Your task to perform on an android device: toggle wifi Image 0: 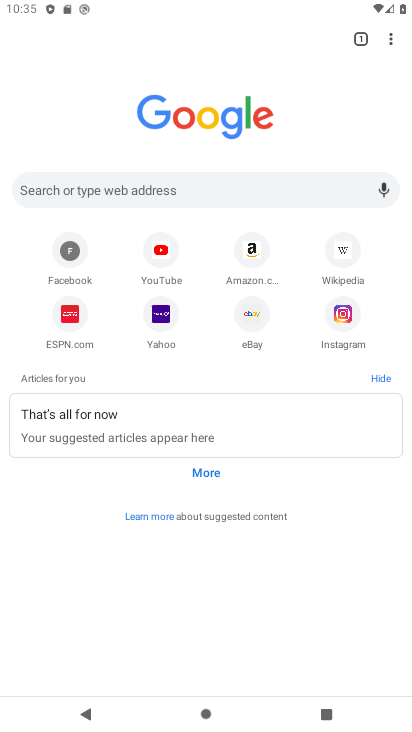
Step 0: click (154, 283)
Your task to perform on an android device: toggle wifi Image 1: 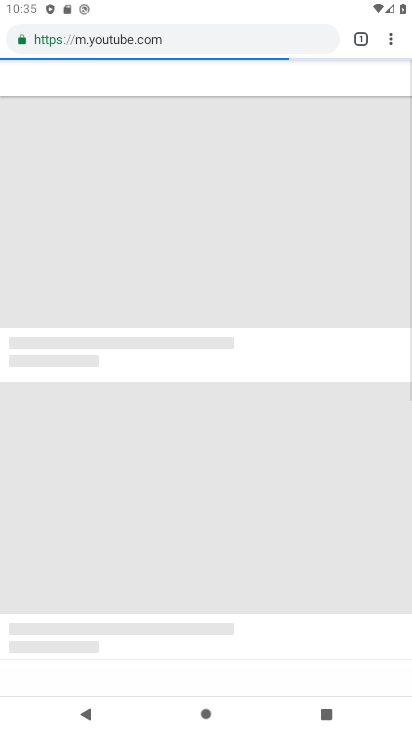
Step 1: press home button
Your task to perform on an android device: toggle wifi Image 2: 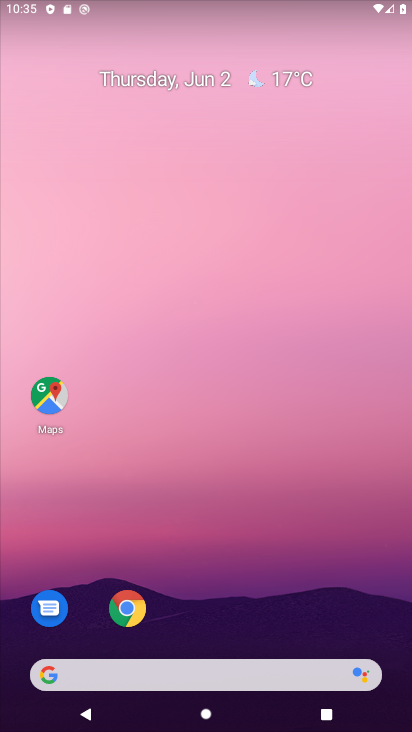
Step 2: drag from (285, 533) to (210, 0)
Your task to perform on an android device: toggle wifi Image 3: 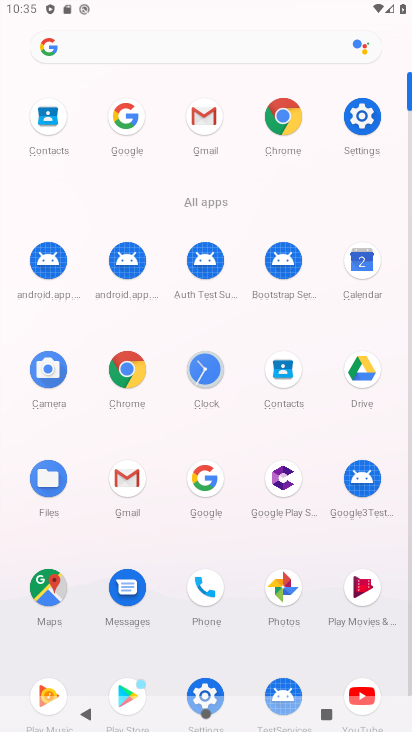
Step 3: click (358, 114)
Your task to perform on an android device: toggle wifi Image 4: 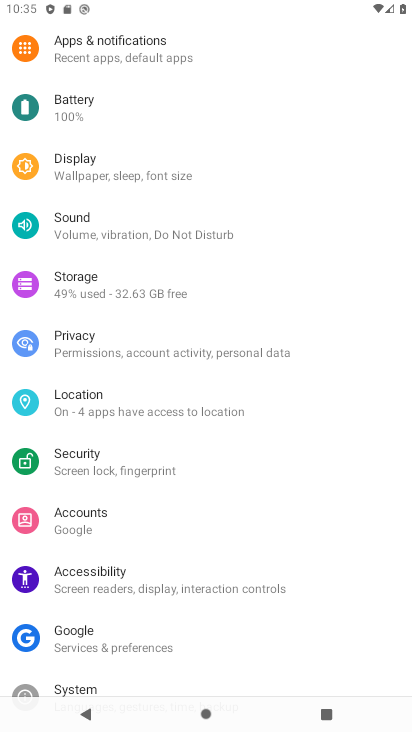
Step 4: drag from (210, 122) to (225, 562)
Your task to perform on an android device: toggle wifi Image 5: 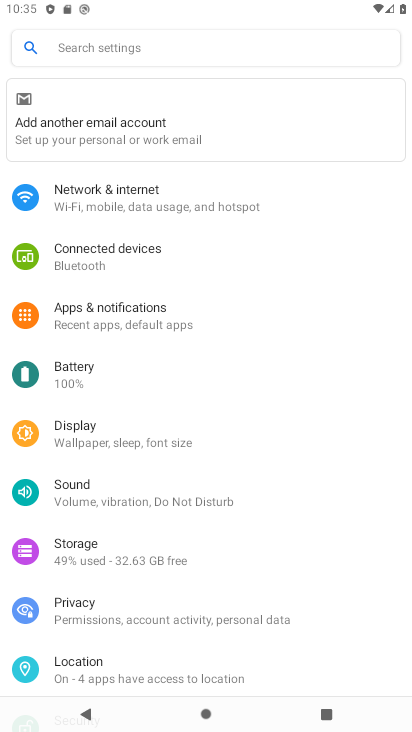
Step 5: click (210, 203)
Your task to perform on an android device: toggle wifi Image 6: 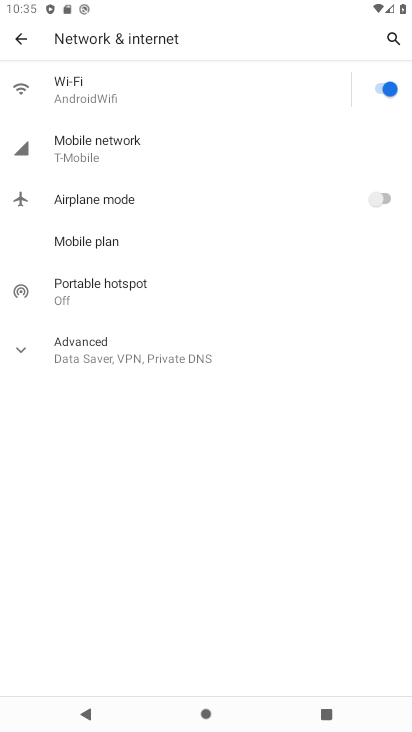
Step 6: click (143, 98)
Your task to perform on an android device: toggle wifi Image 7: 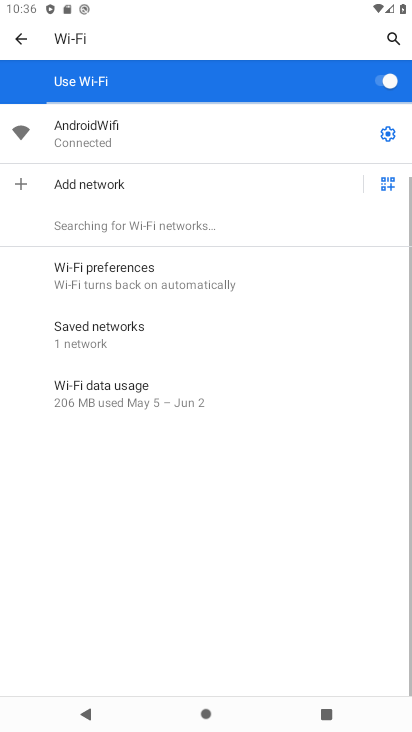
Step 7: click (386, 84)
Your task to perform on an android device: toggle wifi Image 8: 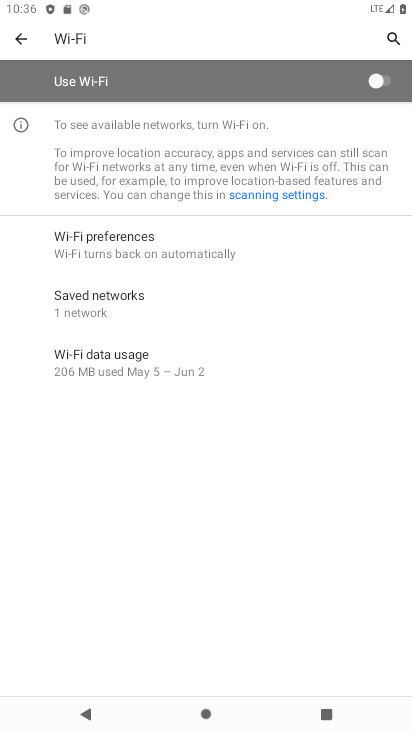
Step 8: task complete